Your task to perform on an android device: toggle notifications settings in the gmail app Image 0: 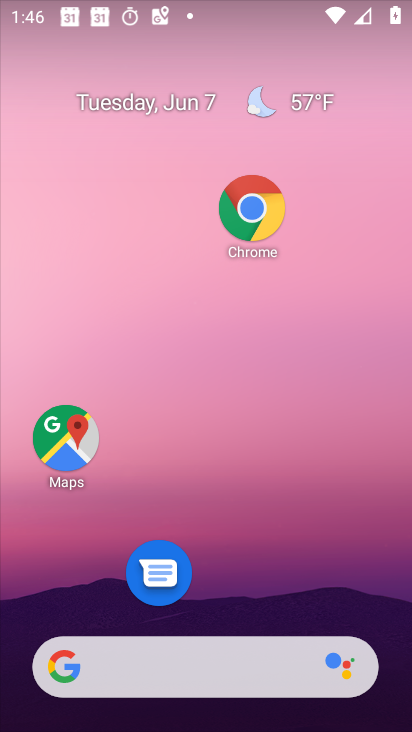
Step 0: drag from (212, 595) to (180, 207)
Your task to perform on an android device: toggle notifications settings in the gmail app Image 1: 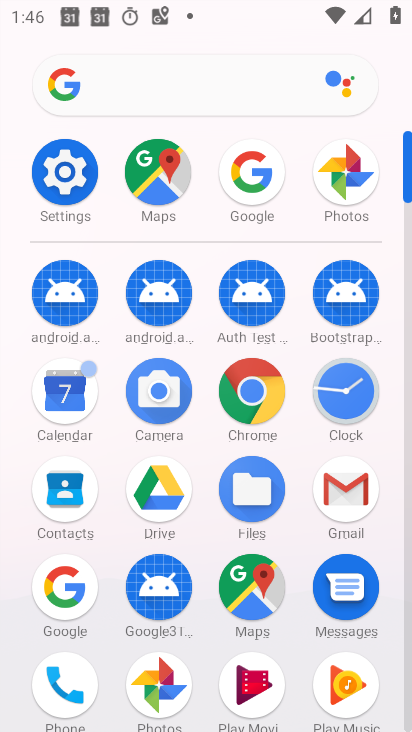
Step 1: click (338, 473)
Your task to perform on an android device: toggle notifications settings in the gmail app Image 2: 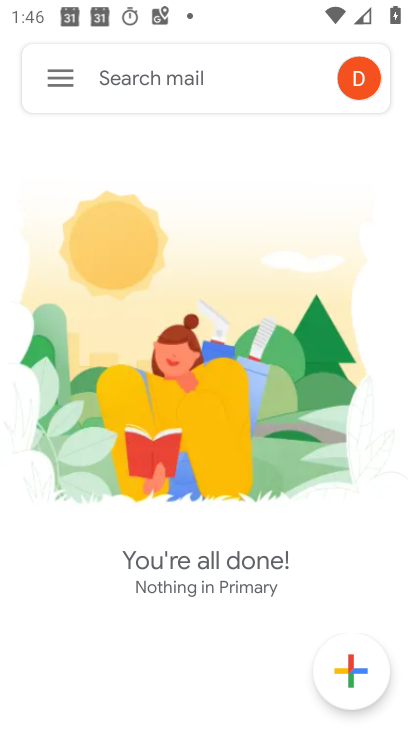
Step 2: click (64, 69)
Your task to perform on an android device: toggle notifications settings in the gmail app Image 3: 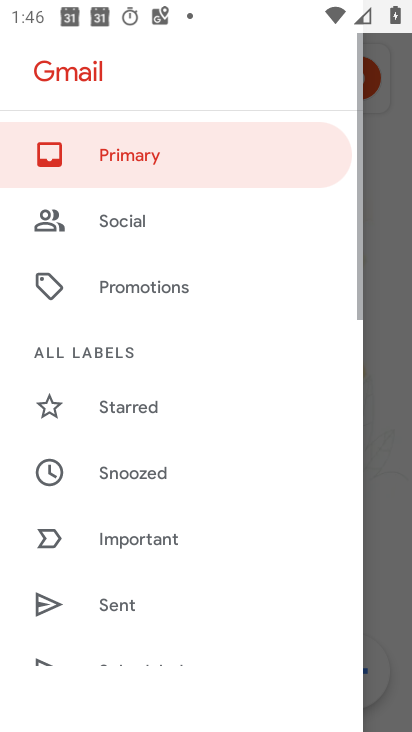
Step 3: drag from (209, 605) to (206, 286)
Your task to perform on an android device: toggle notifications settings in the gmail app Image 4: 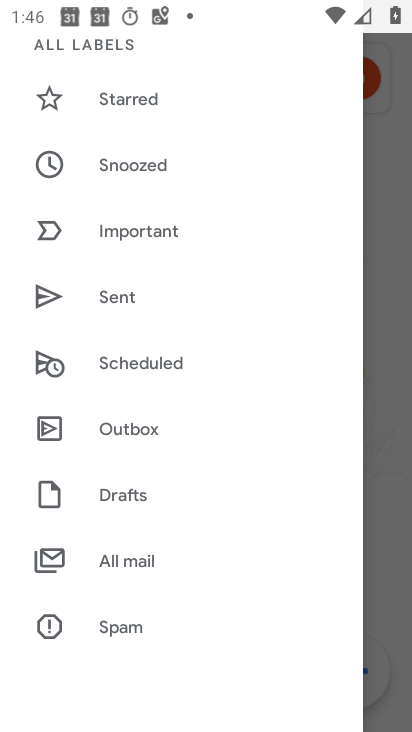
Step 4: drag from (206, 563) to (210, 281)
Your task to perform on an android device: toggle notifications settings in the gmail app Image 5: 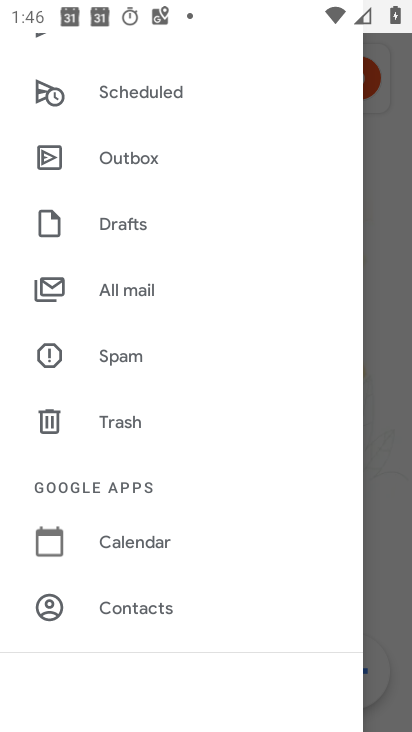
Step 5: drag from (172, 203) to (10, 370)
Your task to perform on an android device: toggle notifications settings in the gmail app Image 6: 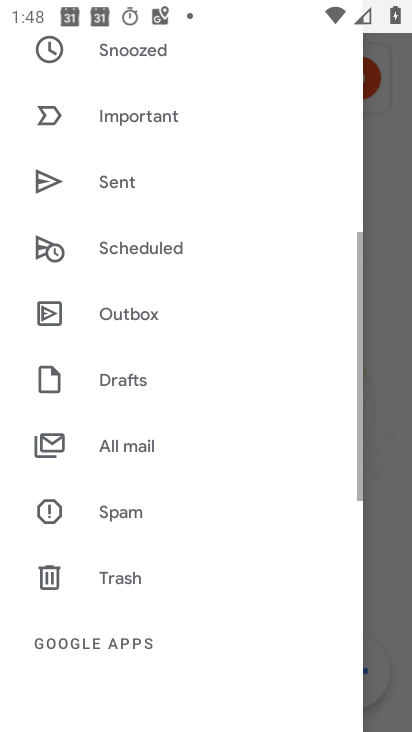
Step 6: drag from (146, 643) to (172, 306)
Your task to perform on an android device: toggle notifications settings in the gmail app Image 7: 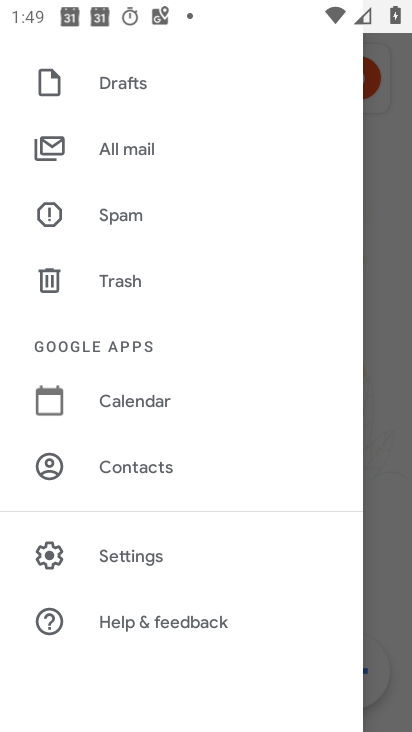
Step 7: click (164, 554)
Your task to perform on an android device: toggle notifications settings in the gmail app Image 8: 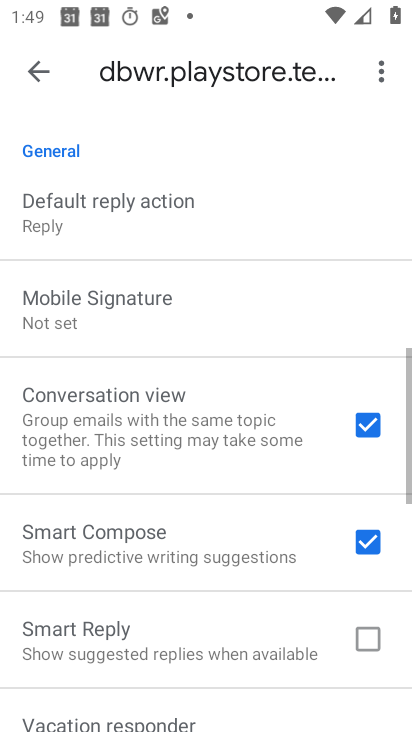
Step 8: drag from (159, 393) to (173, 289)
Your task to perform on an android device: toggle notifications settings in the gmail app Image 9: 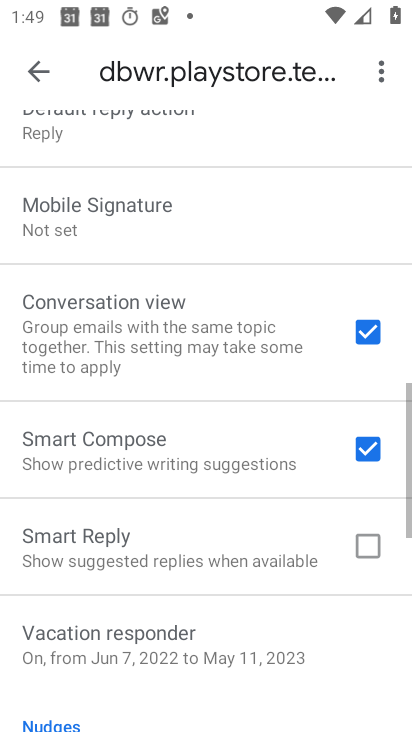
Step 9: drag from (173, 511) to (190, 253)
Your task to perform on an android device: toggle notifications settings in the gmail app Image 10: 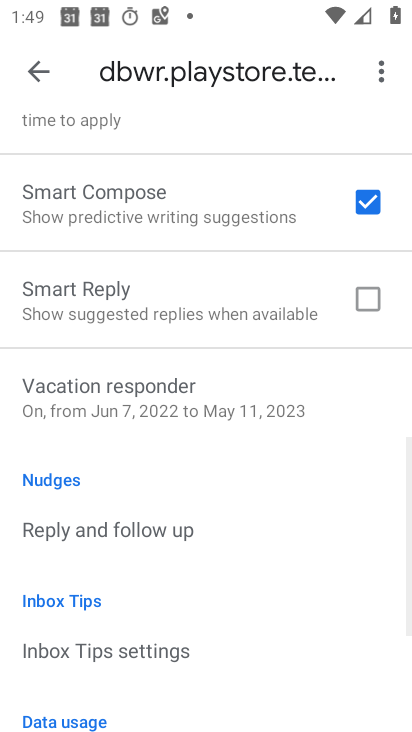
Step 10: drag from (187, 523) to (186, 270)
Your task to perform on an android device: toggle notifications settings in the gmail app Image 11: 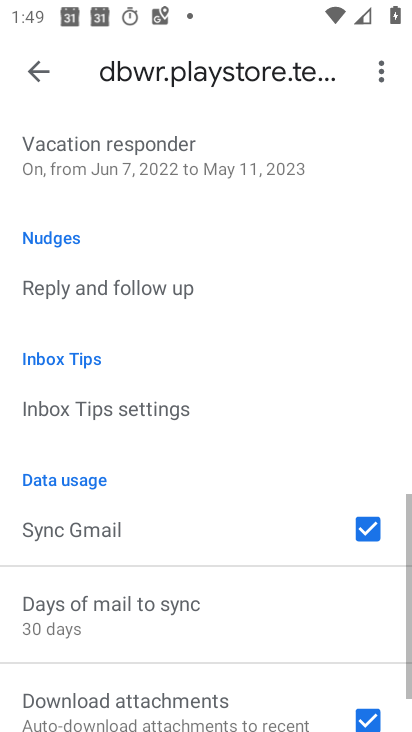
Step 11: drag from (186, 618) to (186, 339)
Your task to perform on an android device: toggle notifications settings in the gmail app Image 12: 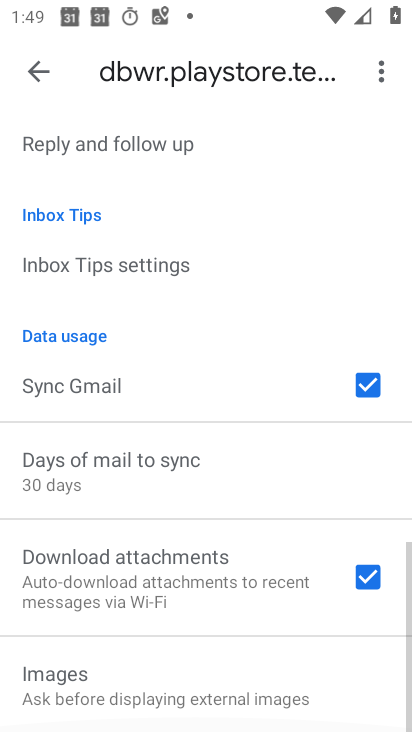
Step 12: drag from (170, 575) to (193, 325)
Your task to perform on an android device: toggle notifications settings in the gmail app Image 13: 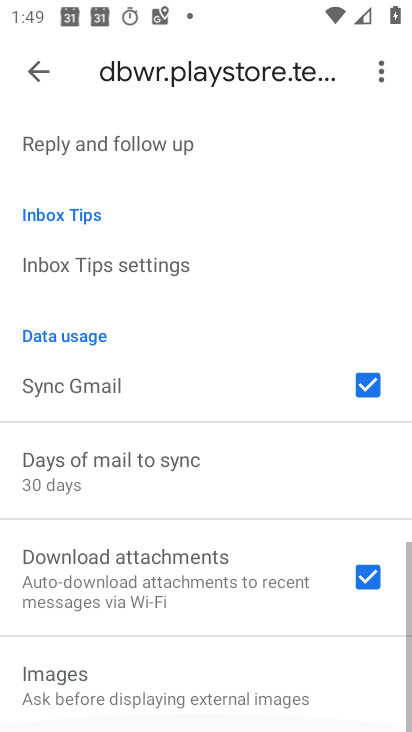
Step 13: drag from (170, 652) to (201, 305)
Your task to perform on an android device: toggle notifications settings in the gmail app Image 14: 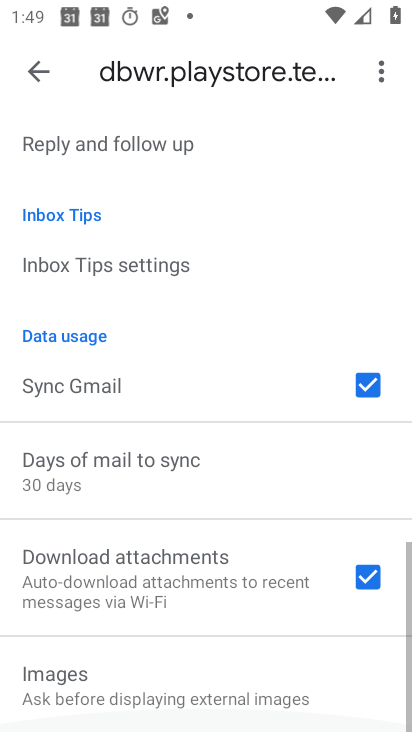
Step 14: drag from (218, 210) to (209, 525)
Your task to perform on an android device: toggle notifications settings in the gmail app Image 15: 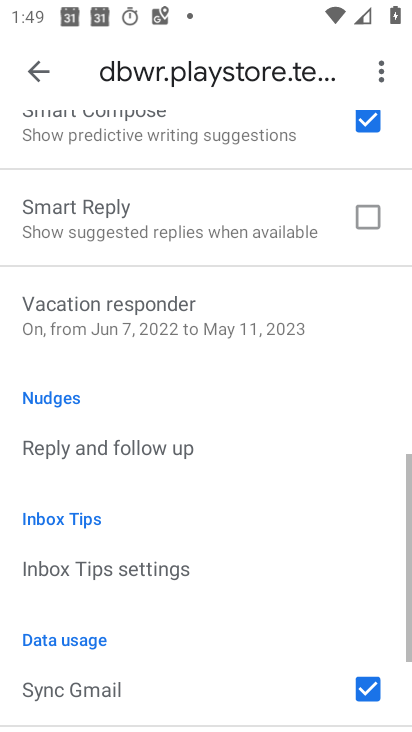
Step 15: drag from (209, 375) to (210, 590)
Your task to perform on an android device: toggle notifications settings in the gmail app Image 16: 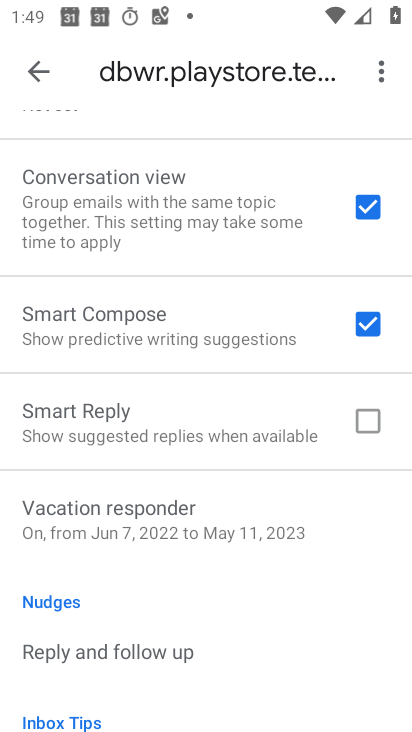
Step 16: drag from (191, 274) to (191, 581)
Your task to perform on an android device: toggle notifications settings in the gmail app Image 17: 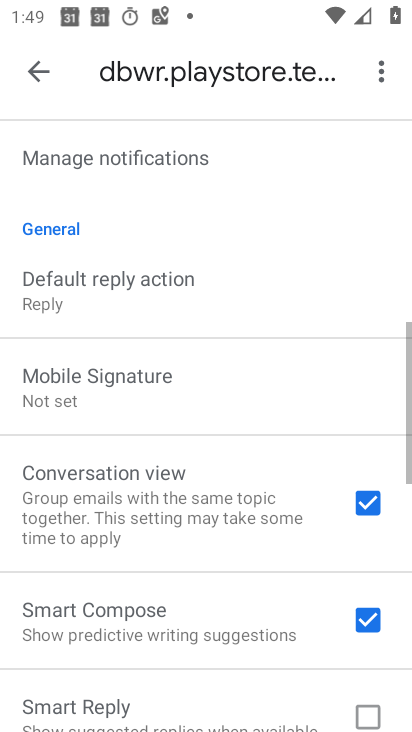
Step 17: drag from (189, 289) to (195, 528)
Your task to perform on an android device: toggle notifications settings in the gmail app Image 18: 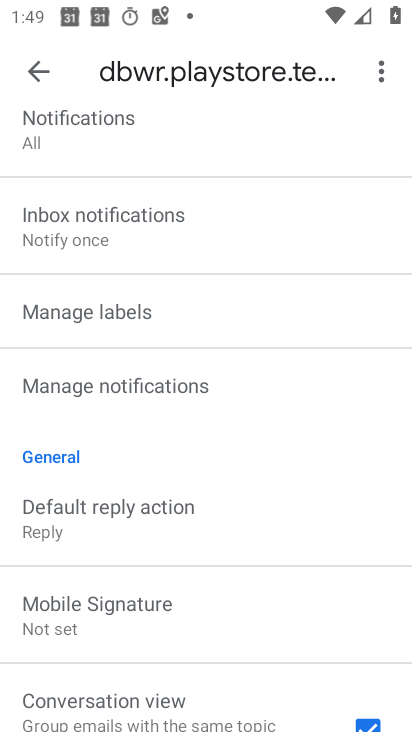
Step 18: drag from (171, 265) to (171, 579)
Your task to perform on an android device: toggle notifications settings in the gmail app Image 19: 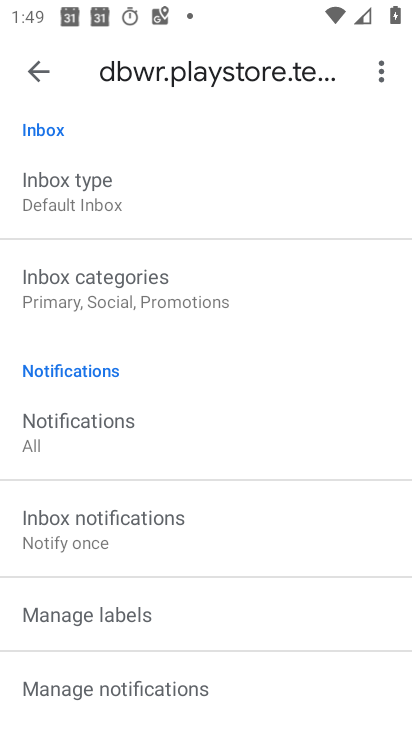
Step 19: drag from (190, 310) to (189, 575)
Your task to perform on an android device: toggle notifications settings in the gmail app Image 20: 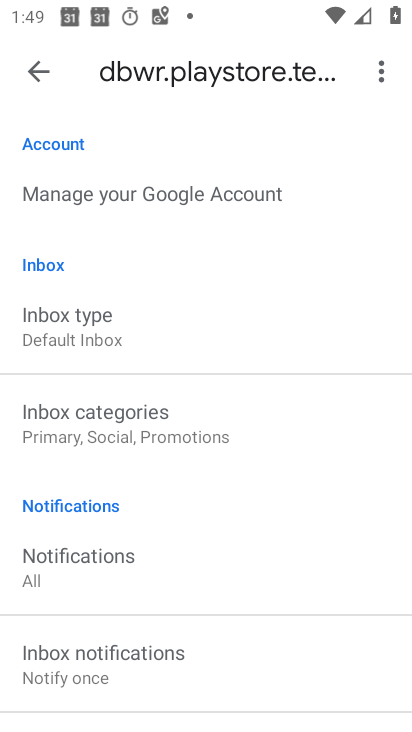
Step 20: drag from (187, 338) to (190, 615)
Your task to perform on an android device: toggle notifications settings in the gmail app Image 21: 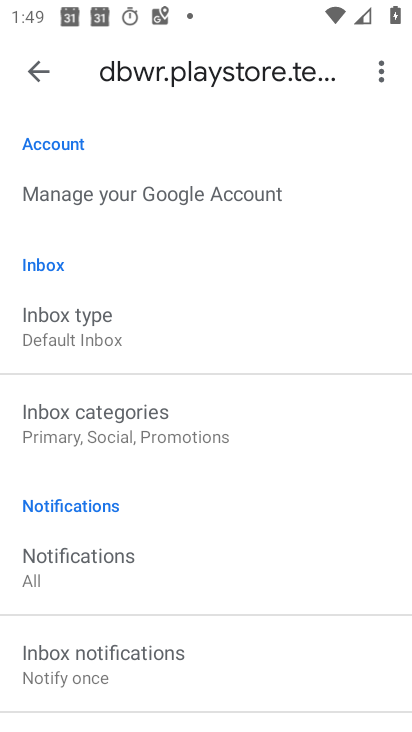
Step 21: drag from (161, 542) to (194, 303)
Your task to perform on an android device: toggle notifications settings in the gmail app Image 22: 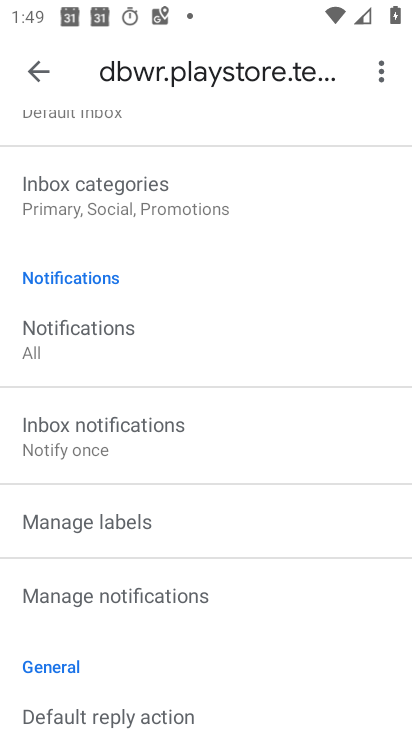
Step 22: click (199, 599)
Your task to perform on an android device: toggle notifications settings in the gmail app Image 23: 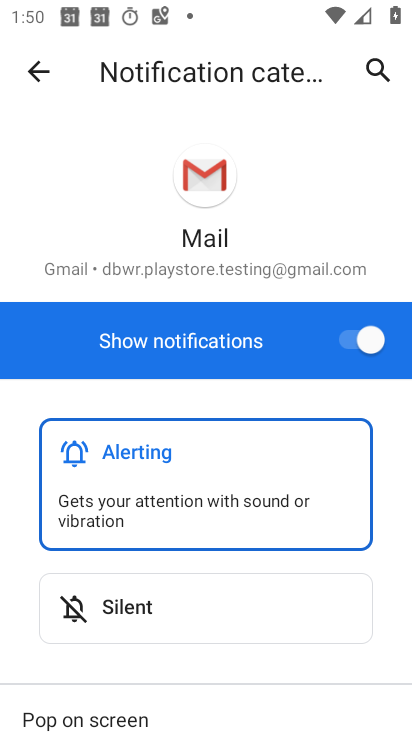
Step 23: drag from (247, 670) to (258, 413)
Your task to perform on an android device: toggle notifications settings in the gmail app Image 24: 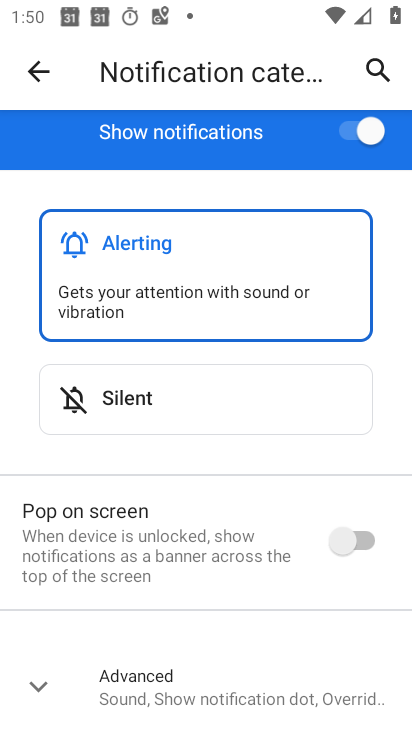
Step 24: drag from (254, 656) to (252, 364)
Your task to perform on an android device: toggle notifications settings in the gmail app Image 25: 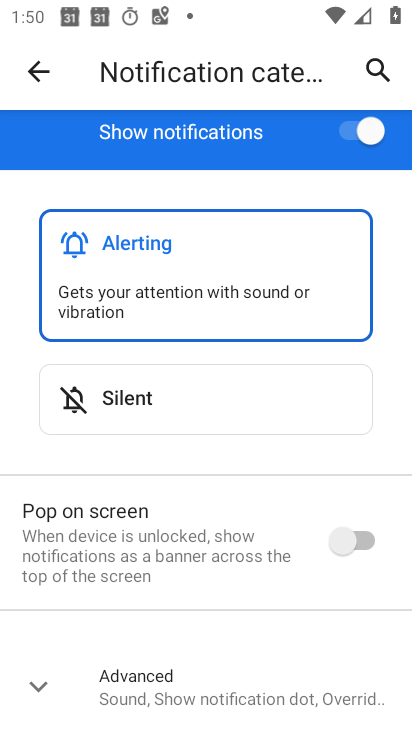
Step 25: drag from (249, 675) to (247, 420)
Your task to perform on an android device: toggle notifications settings in the gmail app Image 26: 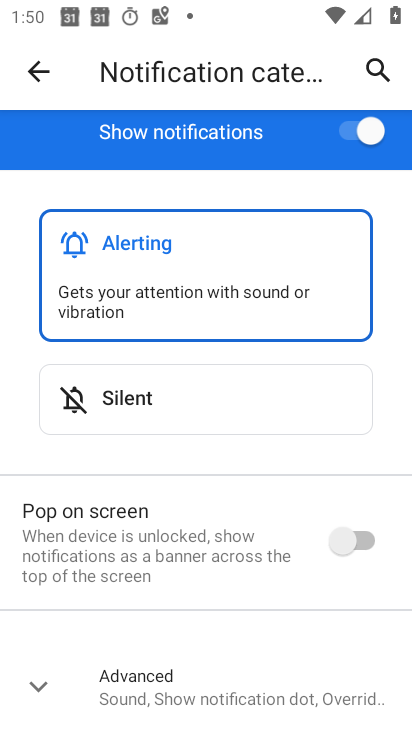
Step 26: drag from (254, 528) to (253, 334)
Your task to perform on an android device: toggle notifications settings in the gmail app Image 27: 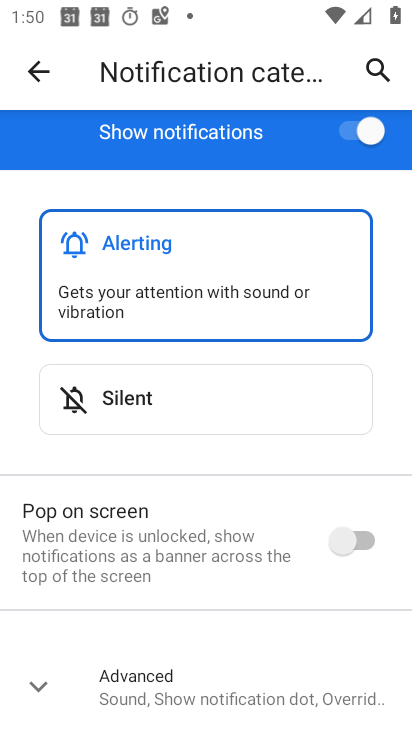
Step 27: drag from (250, 593) to (257, 404)
Your task to perform on an android device: toggle notifications settings in the gmail app Image 28: 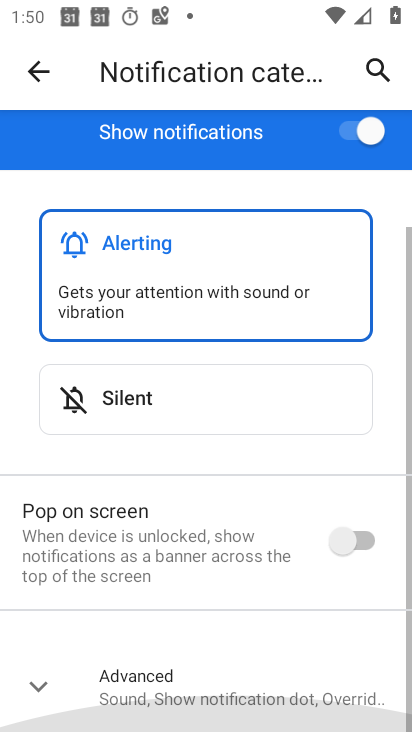
Step 28: drag from (260, 268) to (258, 592)
Your task to perform on an android device: toggle notifications settings in the gmail app Image 29: 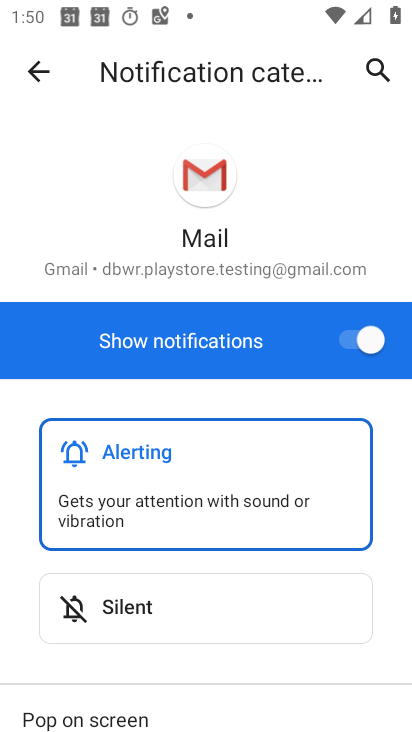
Step 29: click (346, 339)
Your task to perform on an android device: toggle notifications settings in the gmail app Image 30: 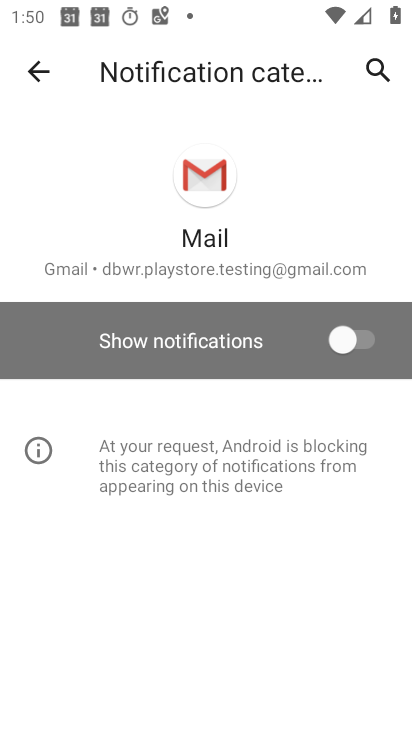
Step 30: task complete